Your task to perform on an android device: Open the phone app and click the voicemail tab. Image 0: 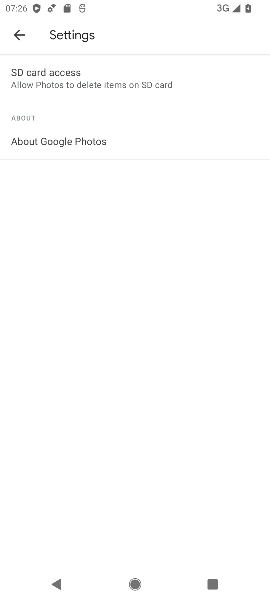
Step 0: press home button
Your task to perform on an android device: Open the phone app and click the voicemail tab. Image 1: 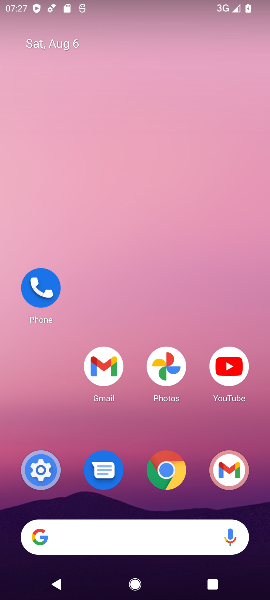
Step 1: drag from (38, 411) to (94, 116)
Your task to perform on an android device: Open the phone app and click the voicemail tab. Image 2: 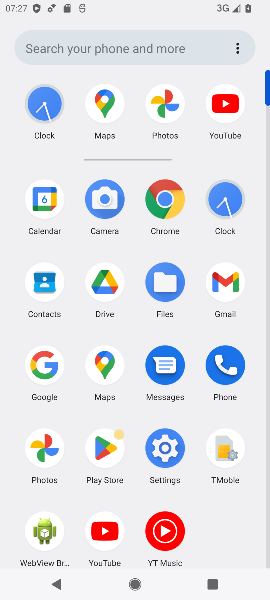
Step 2: click (220, 391)
Your task to perform on an android device: Open the phone app and click the voicemail tab. Image 3: 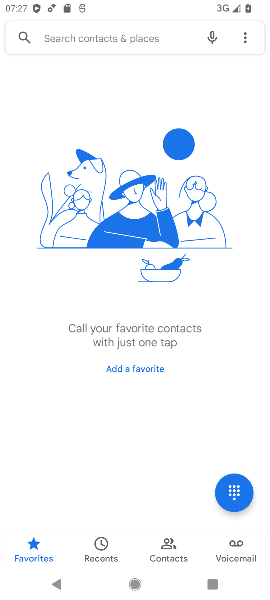
Step 3: click (231, 552)
Your task to perform on an android device: Open the phone app and click the voicemail tab. Image 4: 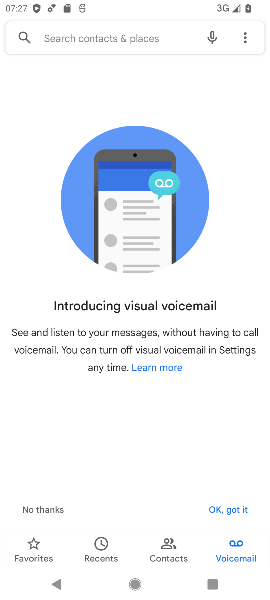
Step 4: task complete